Your task to perform on an android device: turn on notifications settings in the gmail app Image 0: 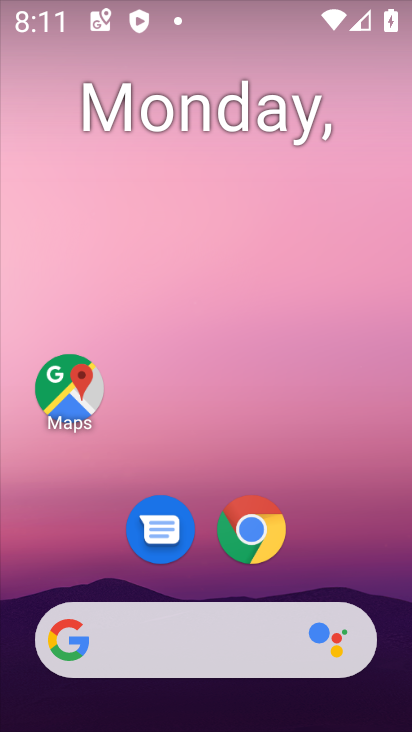
Step 0: drag from (203, 626) to (169, 138)
Your task to perform on an android device: turn on notifications settings in the gmail app Image 1: 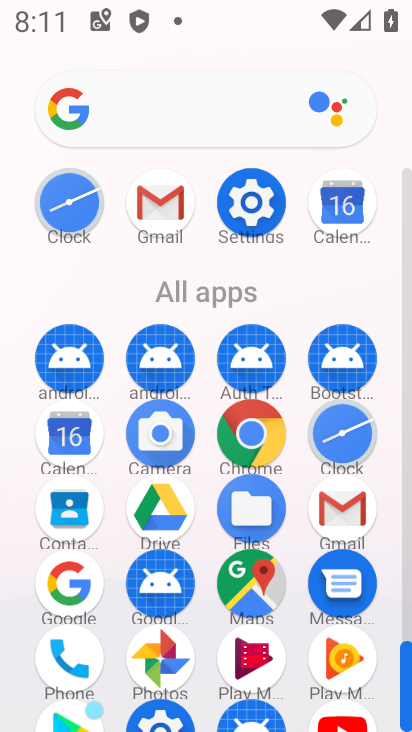
Step 1: click (163, 204)
Your task to perform on an android device: turn on notifications settings in the gmail app Image 2: 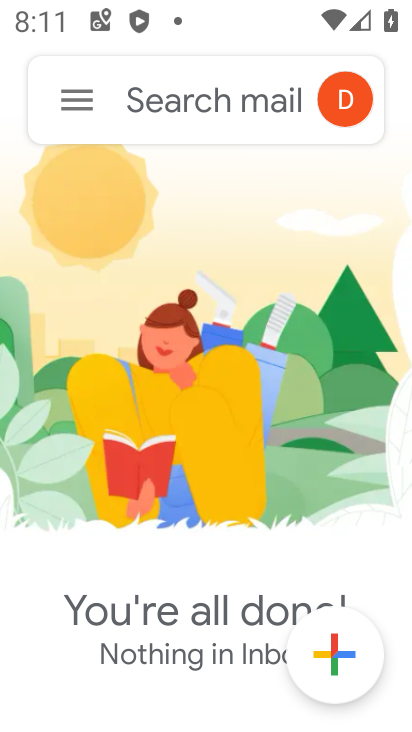
Step 2: click (81, 98)
Your task to perform on an android device: turn on notifications settings in the gmail app Image 3: 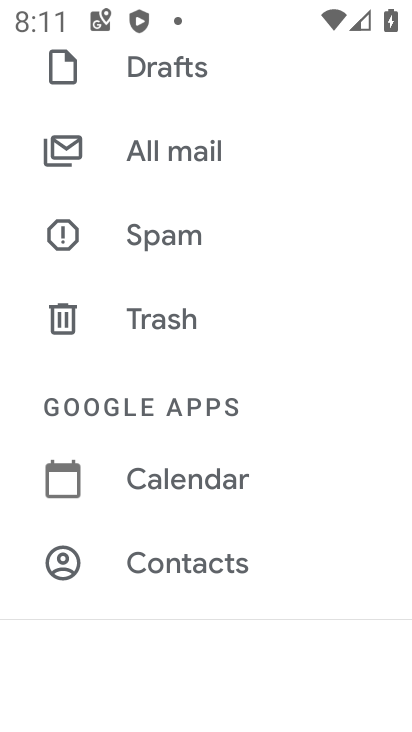
Step 3: drag from (178, 565) to (157, 168)
Your task to perform on an android device: turn on notifications settings in the gmail app Image 4: 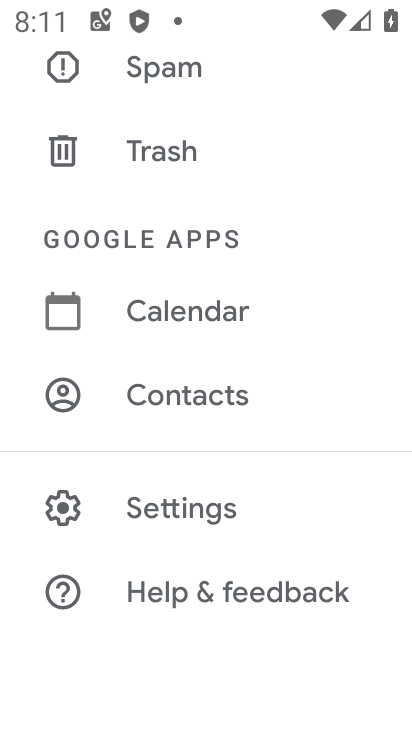
Step 4: click (162, 517)
Your task to perform on an android device: turn on notifications settings in the gmail app Image 5: 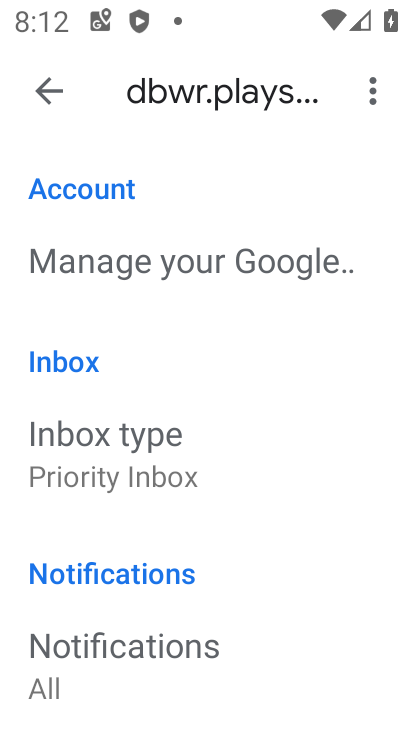
Step 5: drag from (141, 531) to (135, 222)
Your task to perform on an android device: turn on notifications settings in the gmail app Image 6: 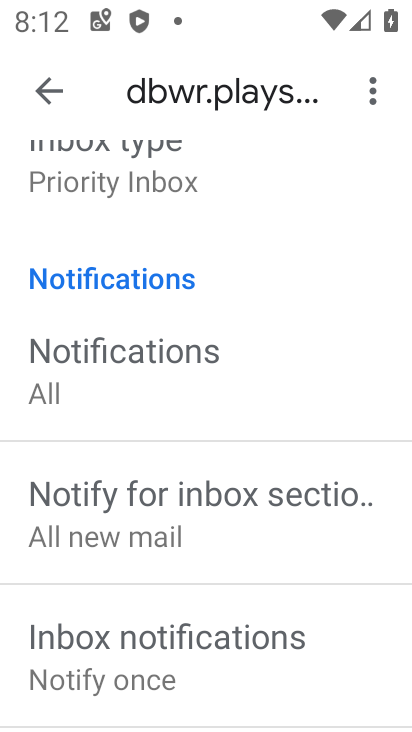
Step 6: drag from (128, 568) to (132, 314)
Your task to perform on an android device: turn on notifications settings in the gmail app Image 7: 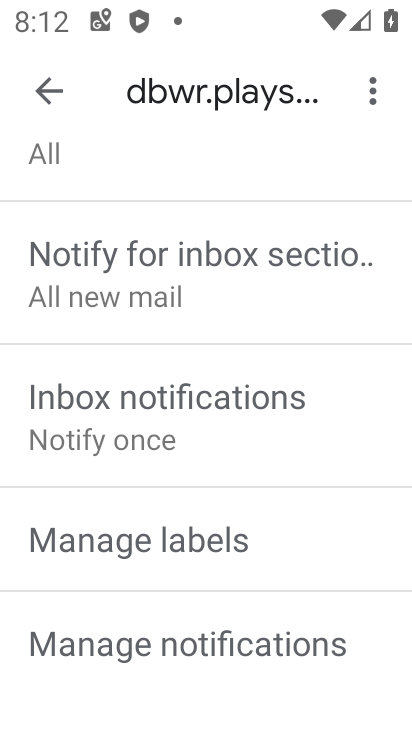
Step 7: click (122, 385)
Your task to perform on an android device: turn on notifications settings in the gmail app Image 8: 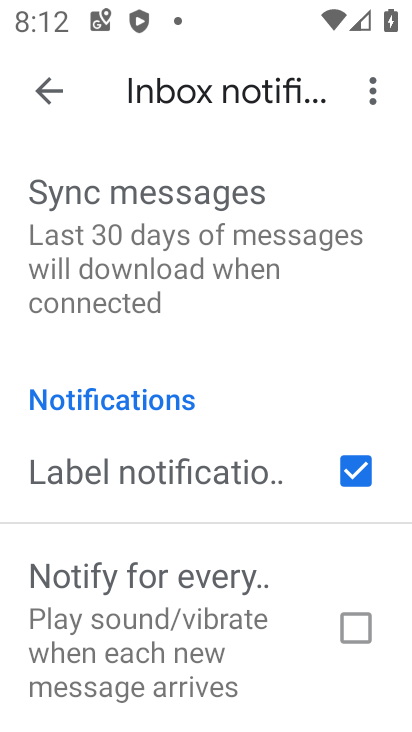
Step 8: click (122, 385)
Your task to perform on an android device: turn on notifications settings in the gmail app Image 9: 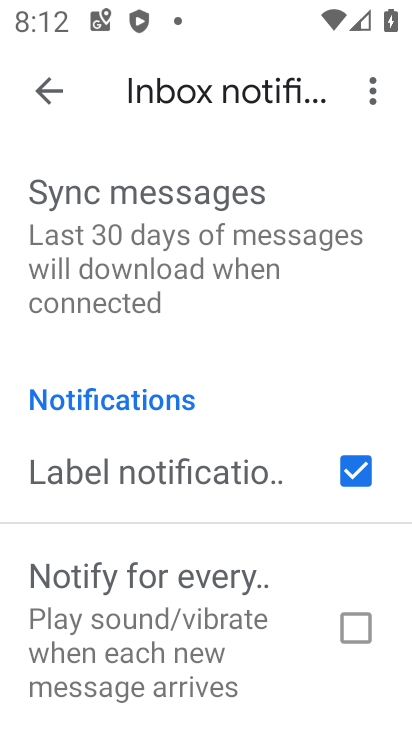
Step 9: task complete